Your task to perform on an android device: empty trash in the gmail app Image 0: 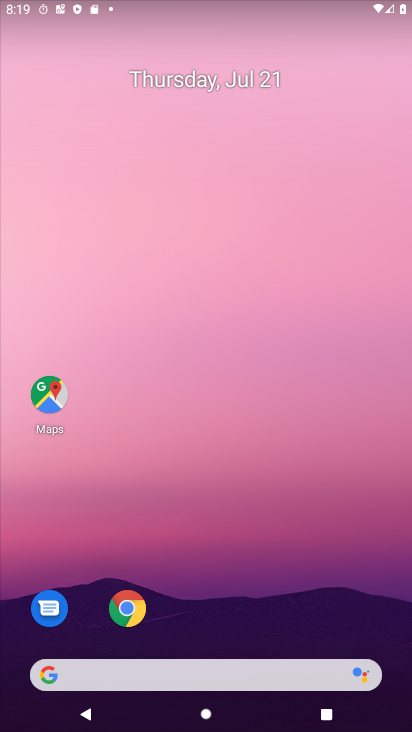
Step 0: drag from (272, 604) to (264, 171)
Your task to perform on an android device: empty trash in the gmail app Image 1: 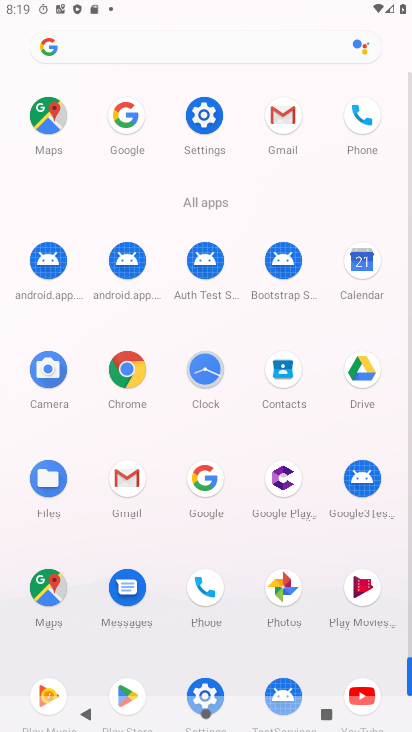
Step 1: click (118, 489)
Your task to perform on an android device: empty trash in the gmail app Image 2: 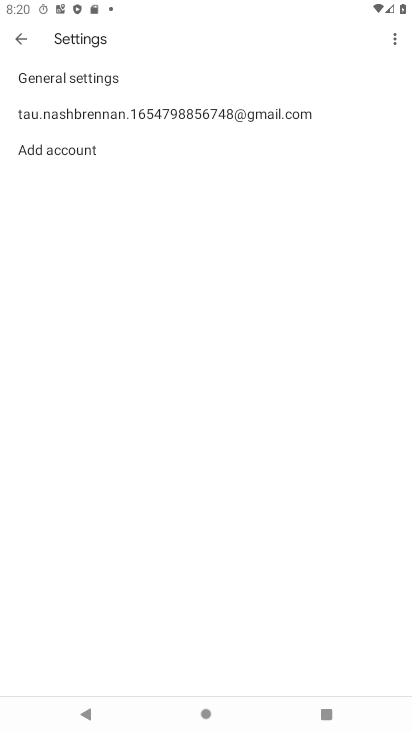
Step 2: click (23, 32)
Your task to perform on an android device: empty trash in the gmail app Image 3: 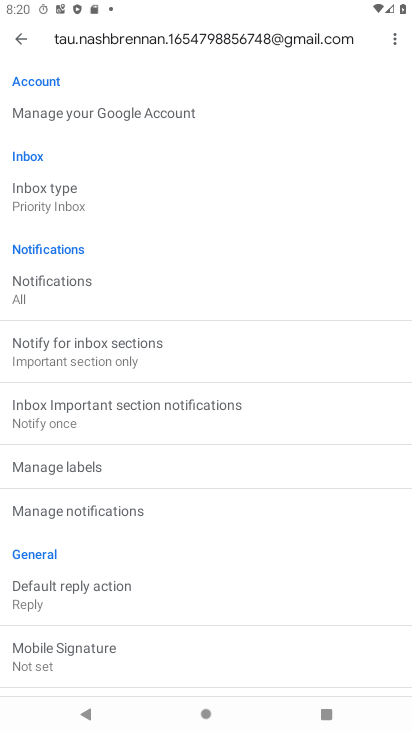
Step 3: click (17, 38)
Your task to perform on an android device: empty trash in the gmail app Image 4: 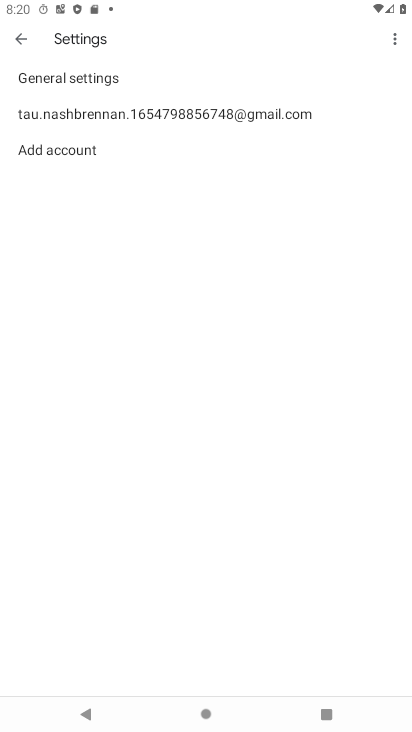
Step 4: click (17, 38)
Your task to perform on an android device: empty trash in the gmail app Image 5: 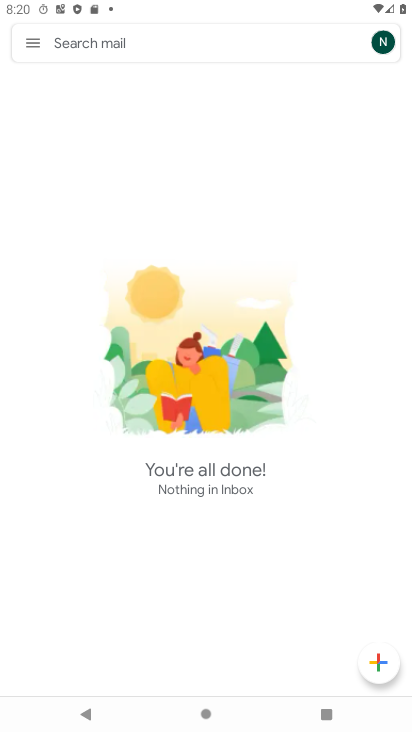
Step 5: click (25, 44)
Your task to perform on an android device: empty trash in the gmail app Image 6: 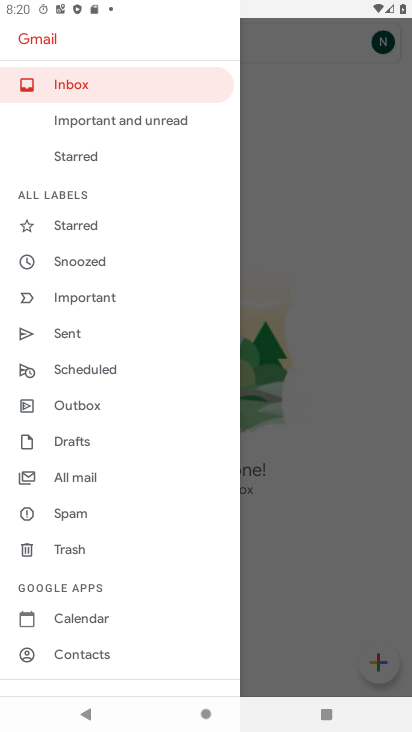
Step 6: click (66, 554)
Your task to perform on an android device: empty trash in the gmail app Image 7: 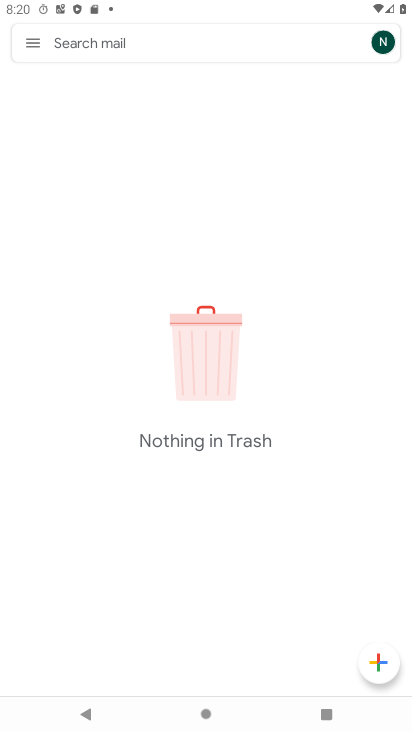
Step 7: task complete